Your task to perform on an android device: Add dell alienware to the cart on amazon.com Image 0: 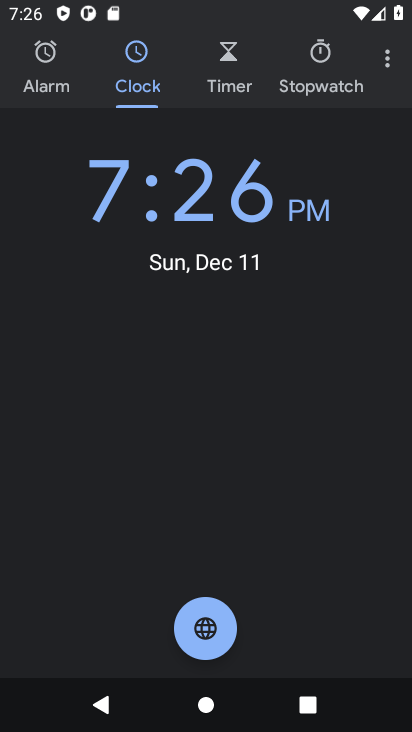
Step 0: press home button
Your task to perform on an android device: Add dell alienware to the cart on amazon.com Image 1: 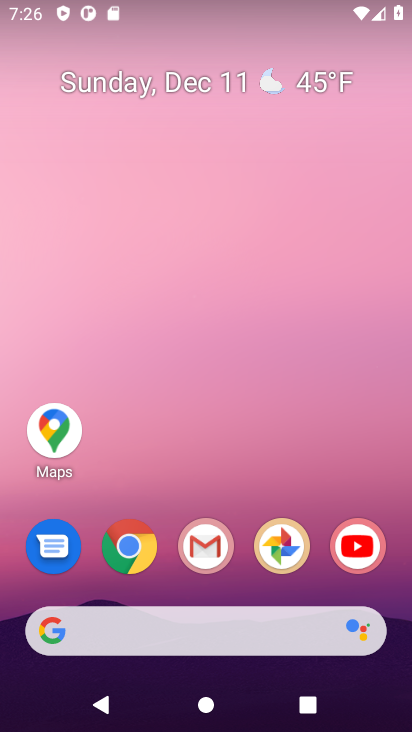
Step 1: click (139, 552)
Your task to perform on an android device: Add dell alienware to the cart on amazon.com Image 2: 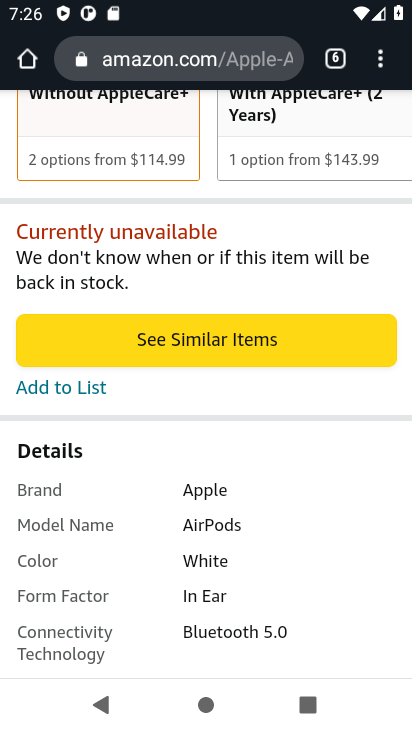
Step 2: drag from (317, 226) to (303, 705)
Your task to perform on an android device: Add dell alienware to the cart on amazon.com Image 3: 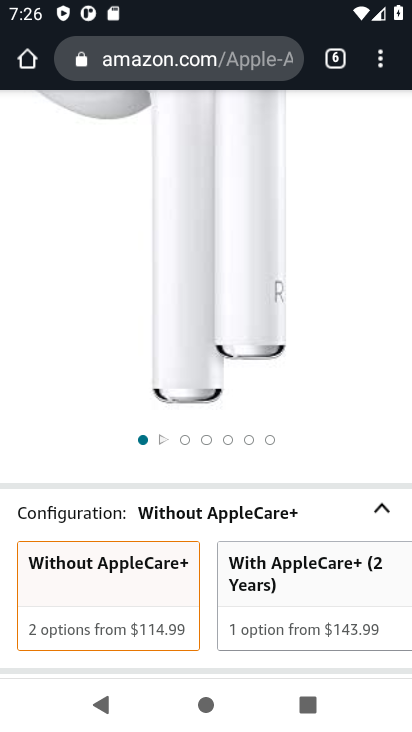
Step 3: drag from (304, 211) to (317, 690)
Your task to perform on an android device: Add dell alienware to the cart on amazon.com Image 4: 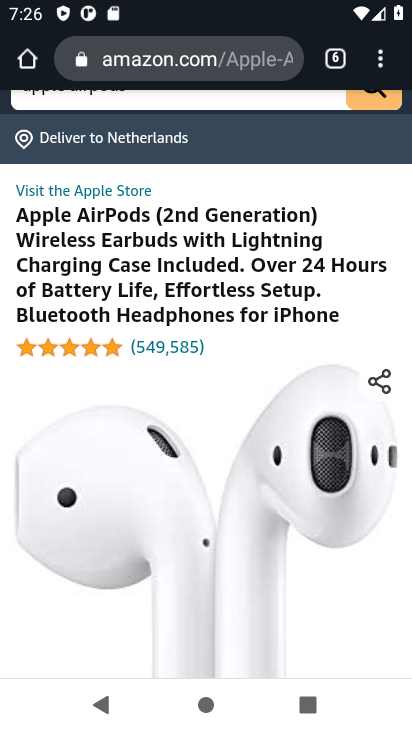
Step 4: drag from (276, 247) to (294, 379)
Your task to perform on an android device: Add dell alienware to the cart on amazon.com Image 5: 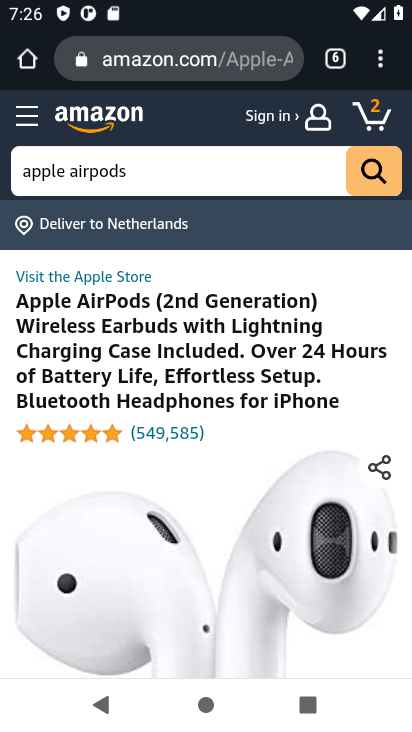
Step 5: click (159, 175)
Your task to perform on an android device: Add dell alienware to the cart on amazon.com Image 6: 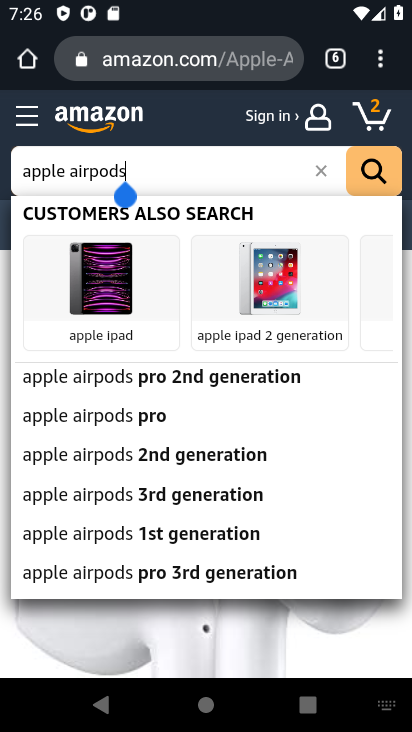
Step 6: click (321, 172)
Your task to perform on an android device: Add dell alienware to the cart on amazon.com Image 7: 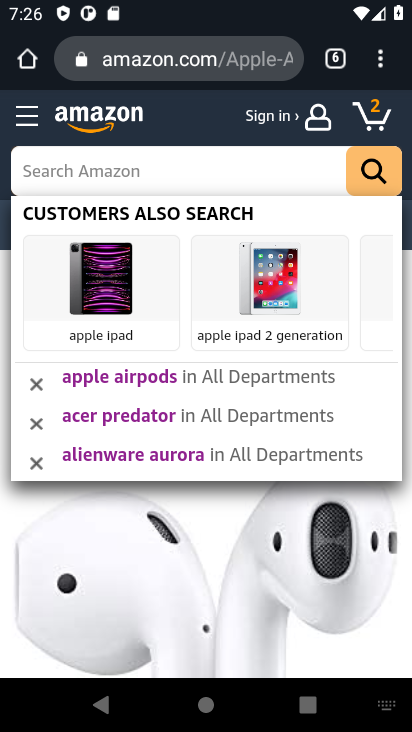
Step 7: type "dell alienware"
Your task to perform on an android device: Add dell alienware to the cart on amazon.com Image 8: 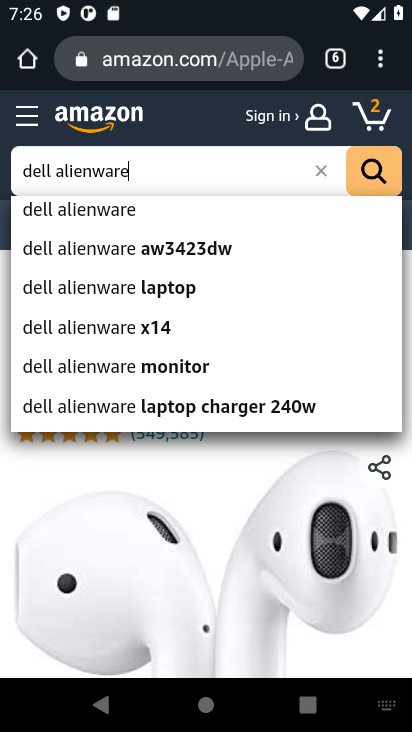
Step 8: click (111, 224)
Your task to perform on an android device: Add dell alienware to the cart on amazon.com Image 9: 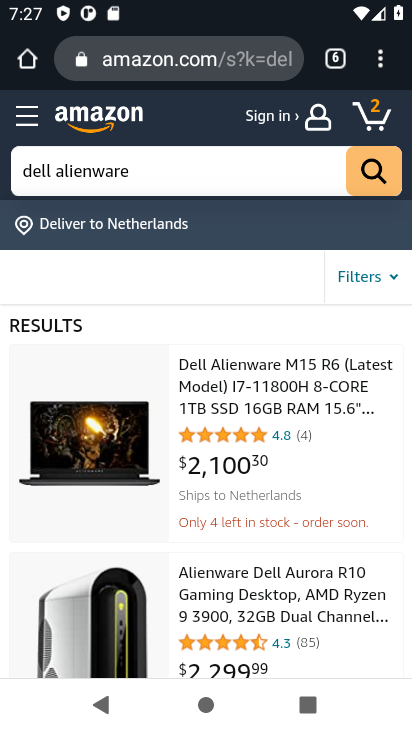
Step 9: click (258, 397)
Your task to perform on an android device: Add dell alienware to the cart on amazon.com Image 10: 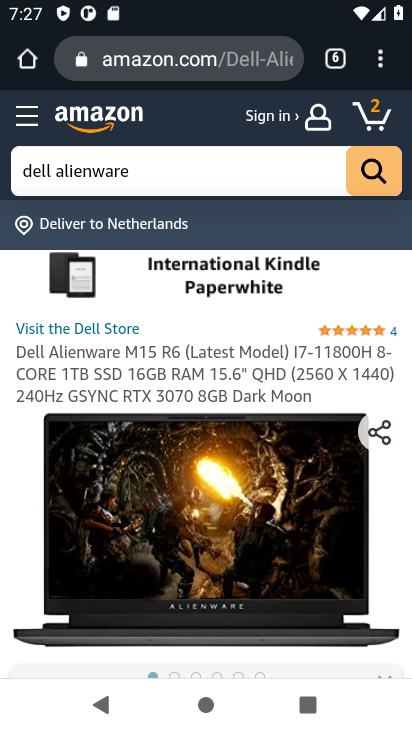
Step 10: drag from (176, 548) to (176, 250)
Your task to perform on an android device: Add dell alienware to the cart on amazon.com Image 11: 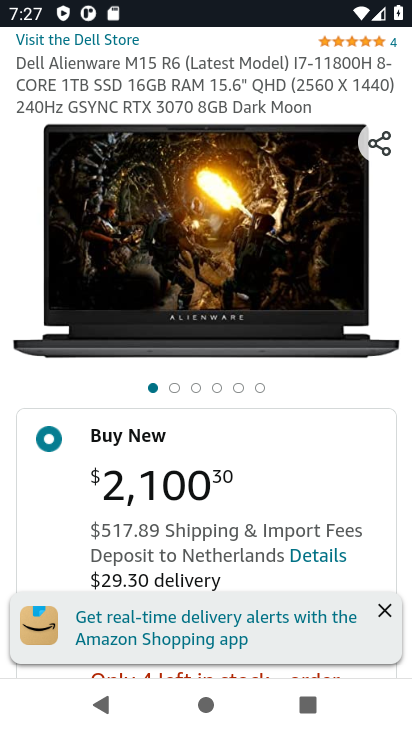
Step 11: drag from (230, 457) to (213, 137)
Your task to perform on an android device: Add dell alienware to the cart on amazon.com Image 12: 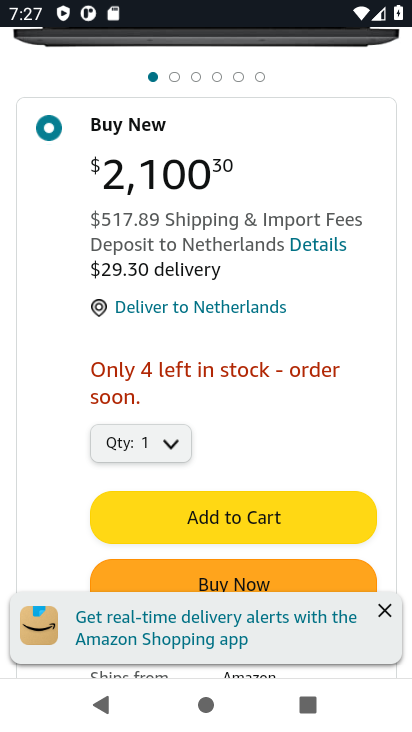
Step 12: drag from (217, 418) to (227, 242)
Your task to perform on an android device: Add dell alienware to the cart on amazon.com Image 13: 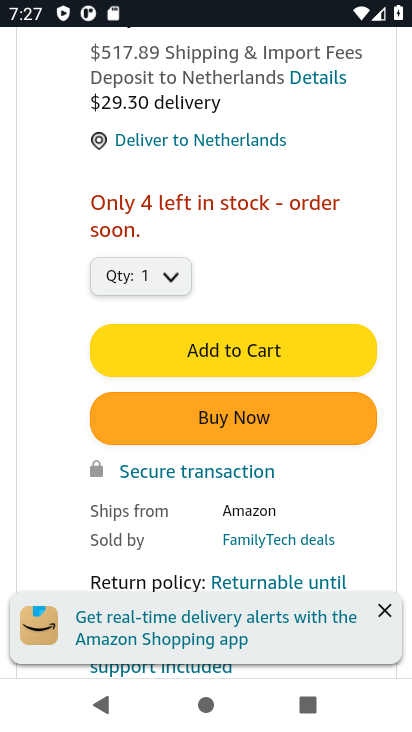
Step 13: click (235, 349)
Your task to perform on an android device: Add dell alienware to the cart on amazon.com Image 14: 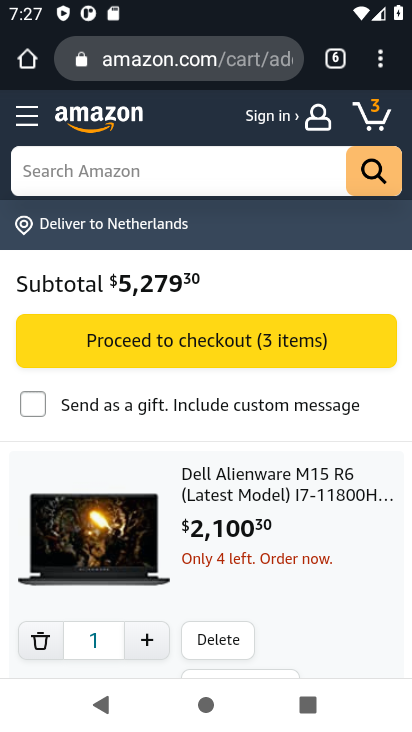
Step 14: task complete